Your task to perform on an android device: Go to Wikipedia Image 0: 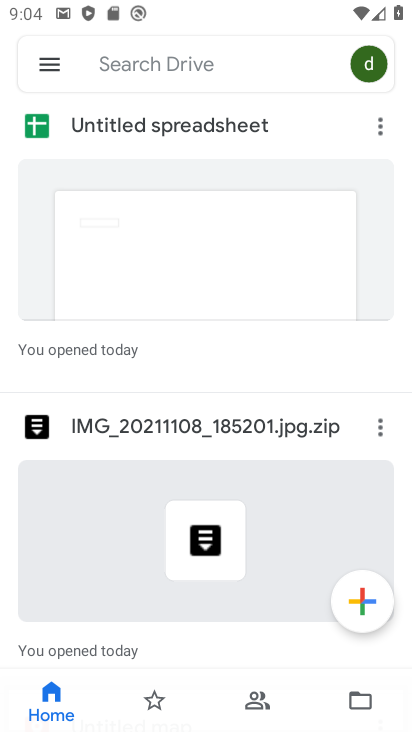
Step 0: press home button
Your task to perform on an android device: Go to Wikipedia Image 1: 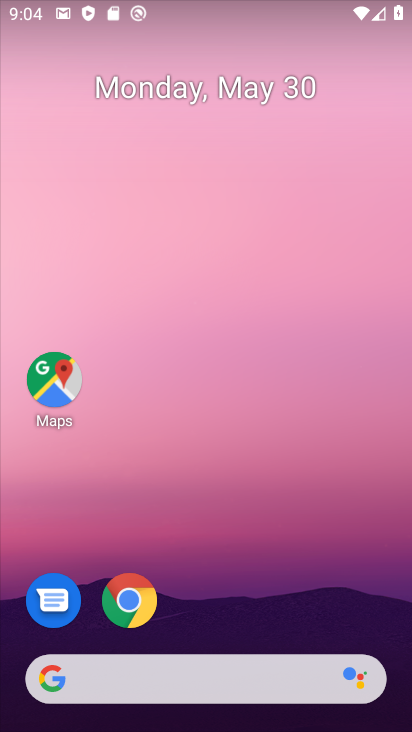
Step 1: click (56, 678)
Your task to perform on an android device: Go to Wikipedia Image 2: 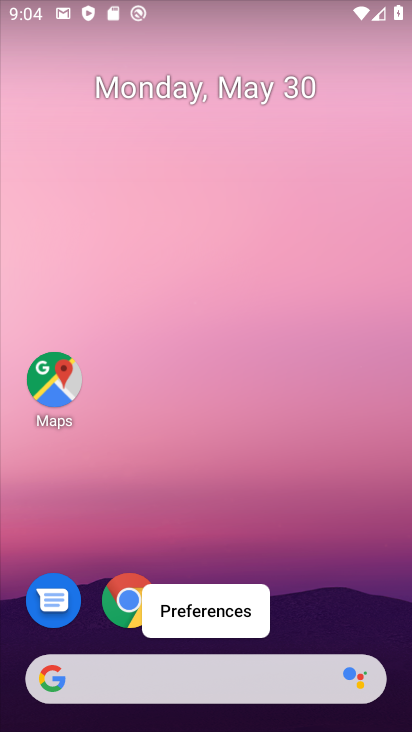
Step 2: click (56, 678)
Your task to perform on an android device: Go to Wikipedia Image 3: 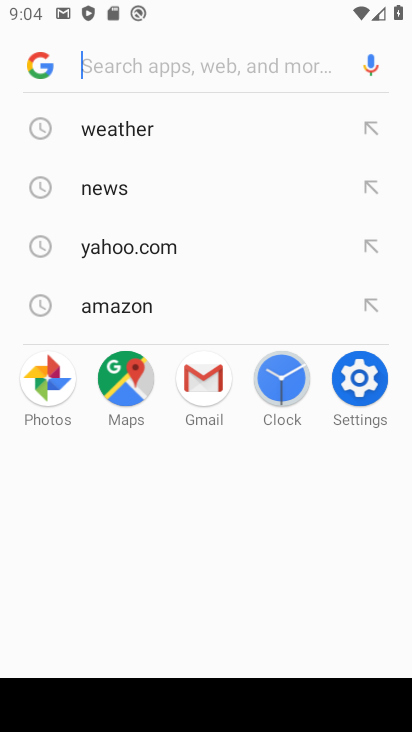
Step 3: type "Wikipedia"
Your task to perform on an android device: Go to Wikipedia Image 4: 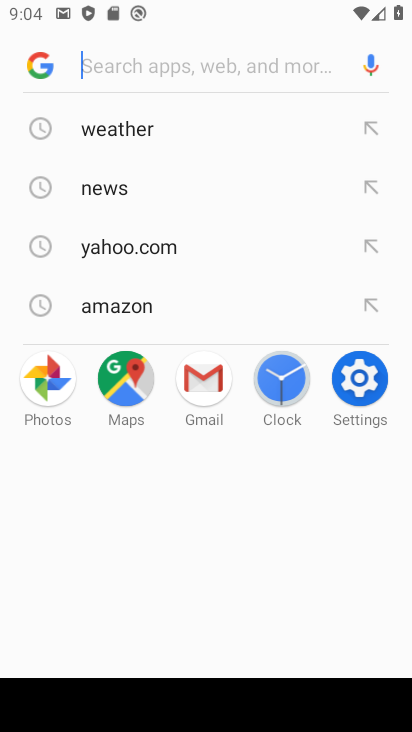
Step 4: click (223, 56)
Your task to perform on an android device: Go to Wikipedia Image 5: 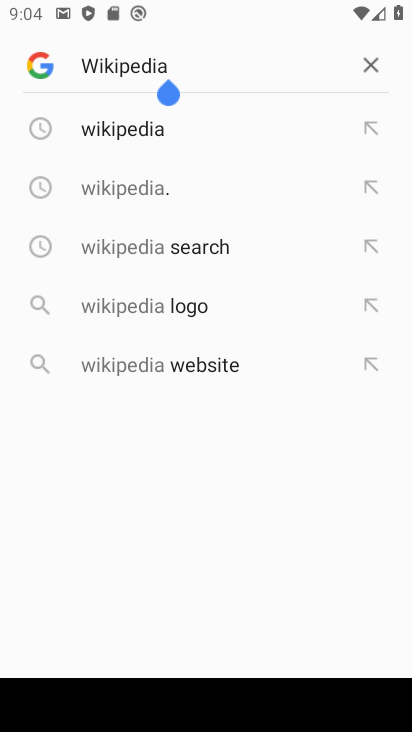
Step 5: click (106, 133)
Your task to perform on an android device: Go to Wikipedia Image 6: 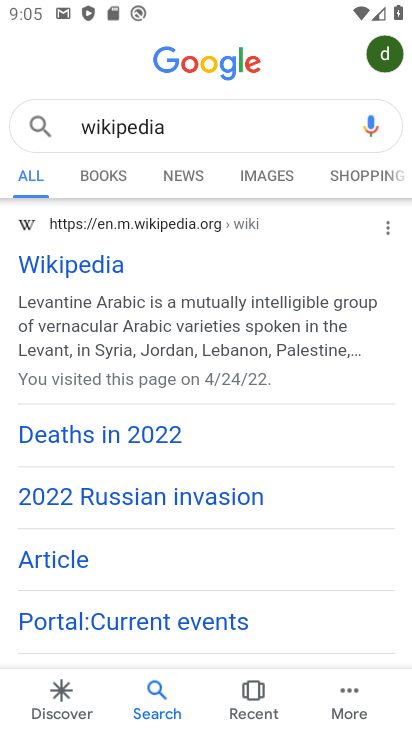
Step 6: click (65, 262)
Your task to perform on an android device: Go to Wikipedia Image 7: 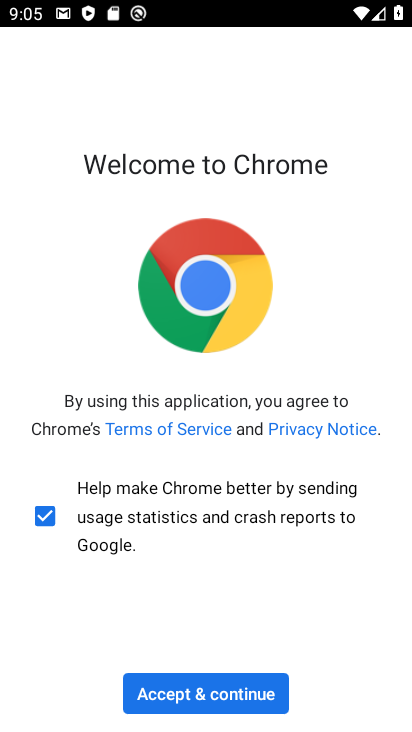
Step 7: click (213, 700)
Your task to perform on an android device: Go to Wikipedia Image 8: 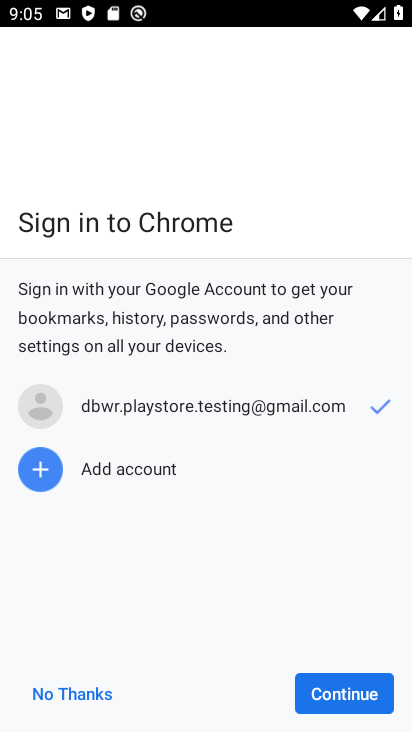
Step 8: click (324, 704)
Your task to perform on an android device: Go to Wikipedia Image 9: 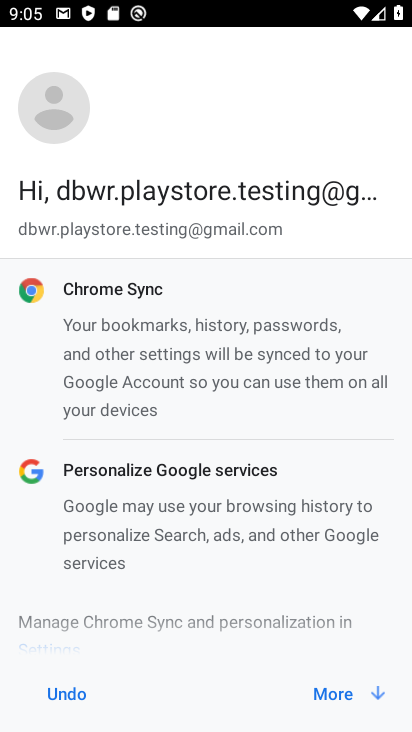
Step 9: click (322, 702)
Your task to perform on an android device: Go to Wikipedia Image 10: 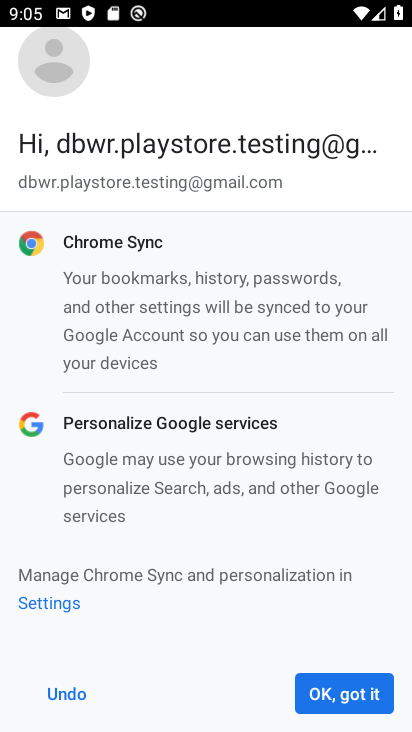
Step 10: click (344, 701)
Your task to perform on an android device: Go to Wikipedia Image 11: 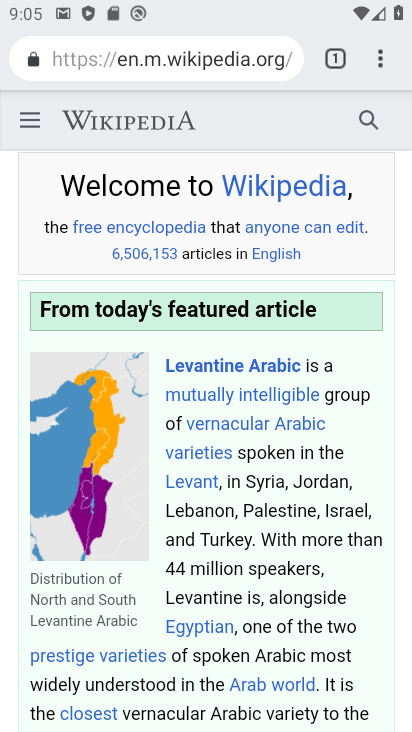
Step 11: task complete